Your task to perform on an android device: Search for "alienware area 51" on ebay.com, select the first entry, add it to the cart, then select checkout. Image 0: 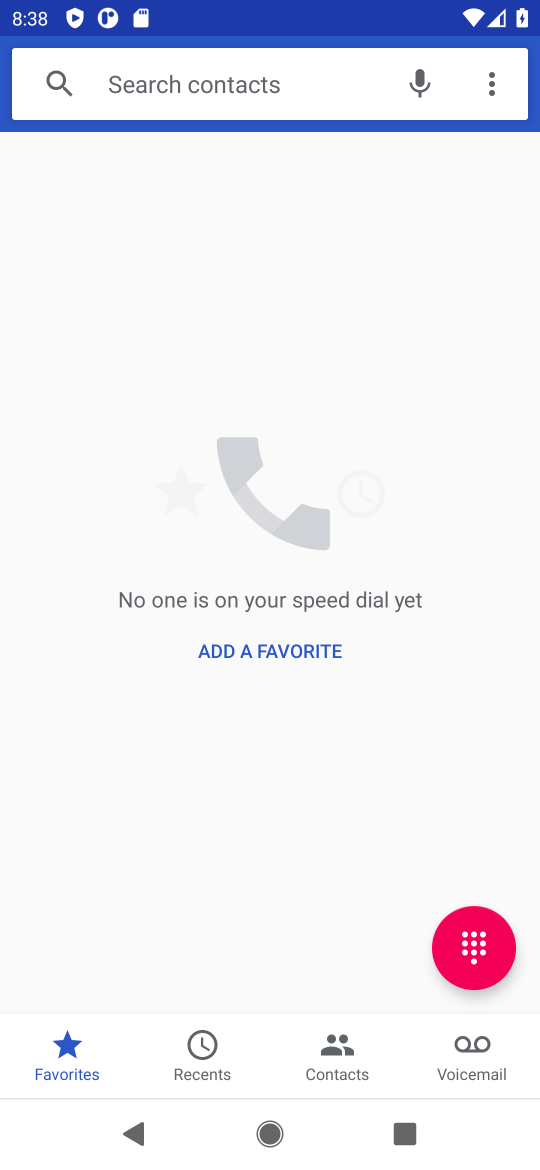
Step 0: press home button
Your task to perform on an android device: Search for "alienware area 51" on ebay.com, select the first entry, add it to the cart, then select checkout. Image 1: 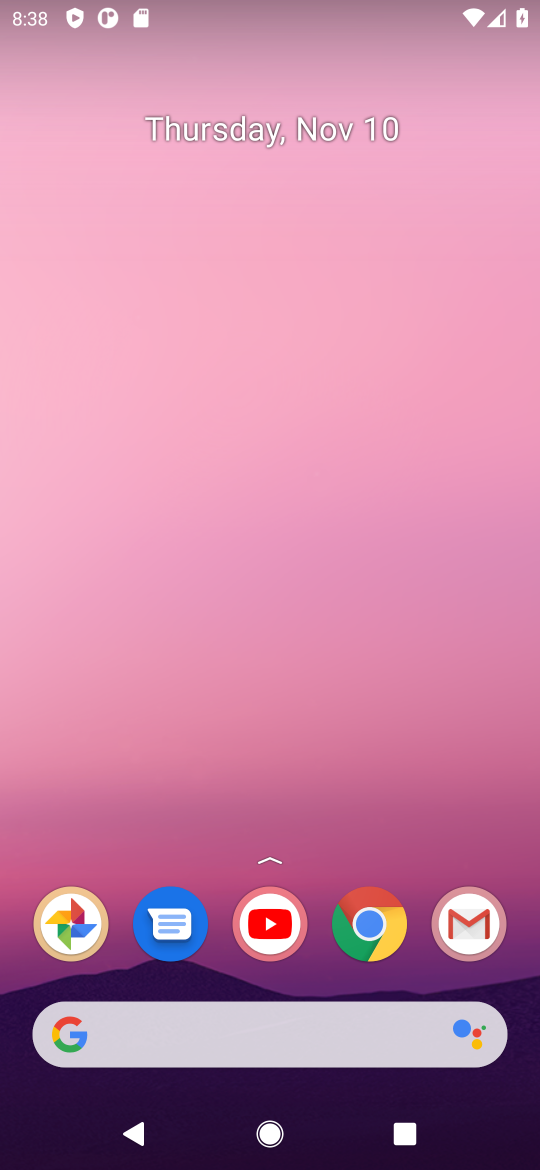
Step 1: click (446, 838)
Your task to perform on an android device: Search for "alienware area 51" on ebay.com, select the first entry, add it to the cart, then select checkout. Image 2: 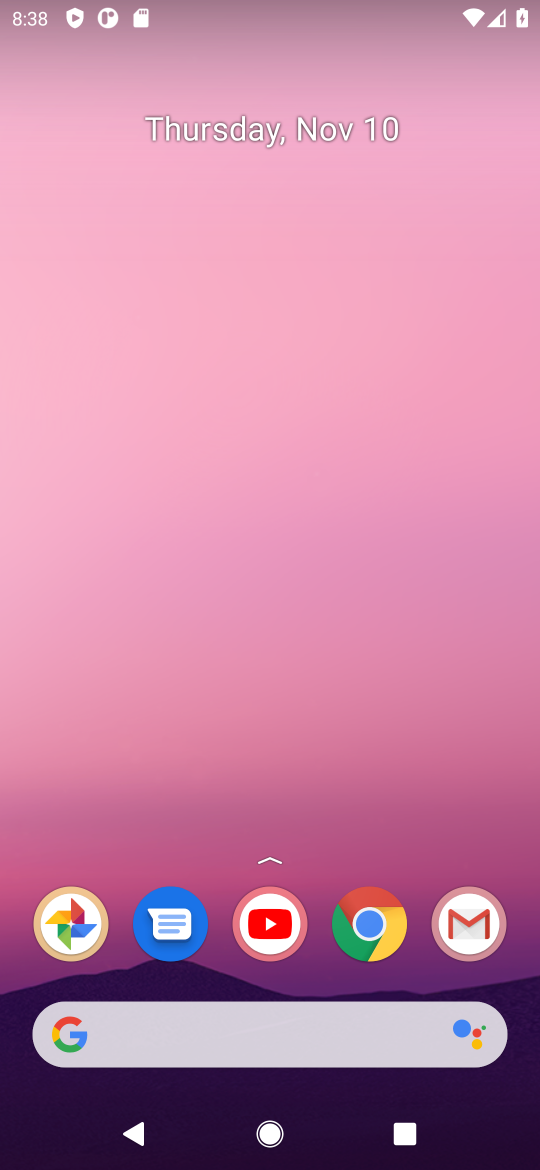
Step 2: click (374, 929)
Your task to perform on an android device: Search for "alienware area 51" on ebay.com, select the first entry, add it to the cart, then select checkout. Image 3: 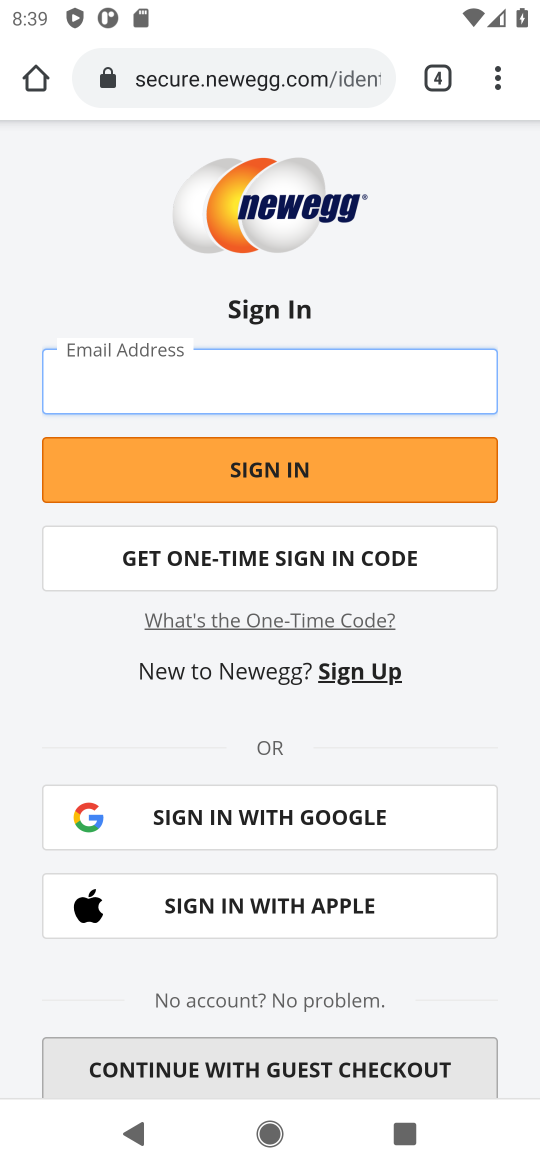
Step 3: click (191, 87)
Your task to perform on an android device: Search for "alienware area 51" on ebay.com, select the first entry, add it to the cart, then select checkout. Image 4: 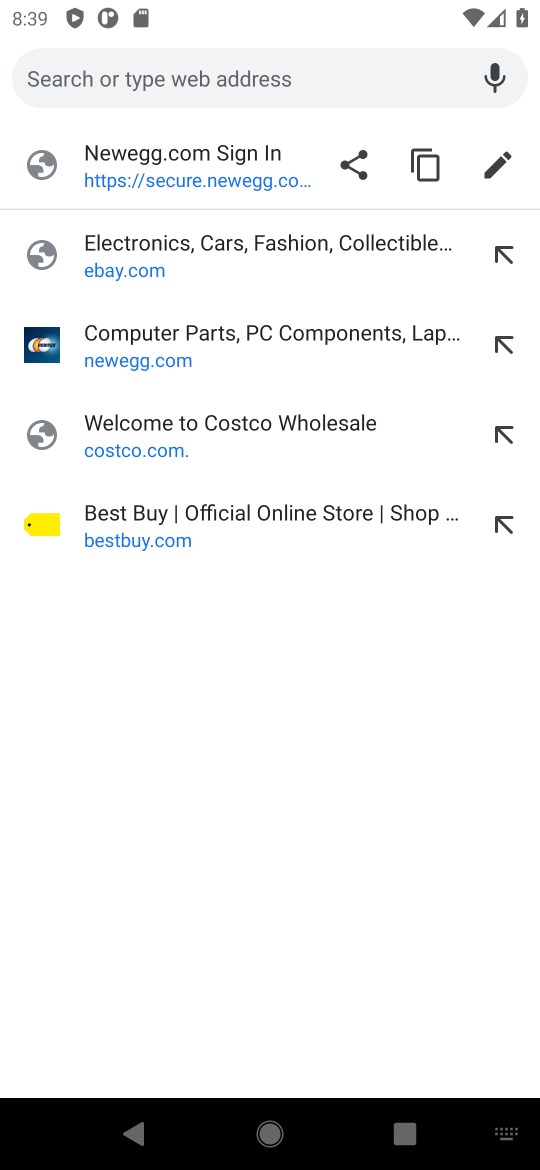
Step 4: click (120, 278)
Your task to perform on an android device: Search for "alienware area 51" on ebay.com, select the first entry, add it to the cart, then select checkout. Image 5: 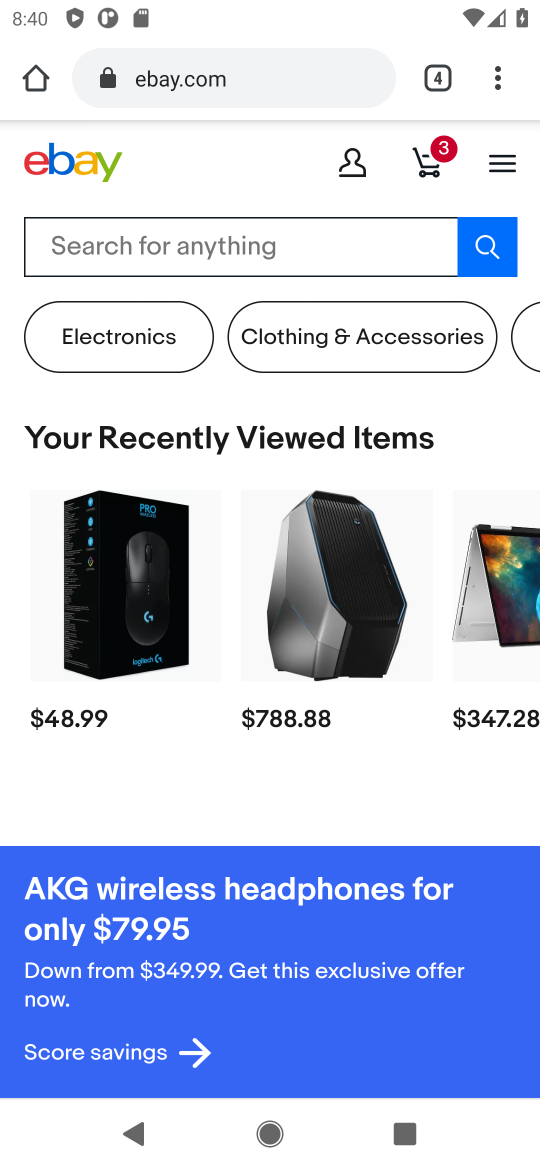
Step 5: click (135, 249)
Your task to perform on an android device: Search for "alienware area 51" on ebay.com, select the first entry, add it to the cart, then select checkout. Image 6: 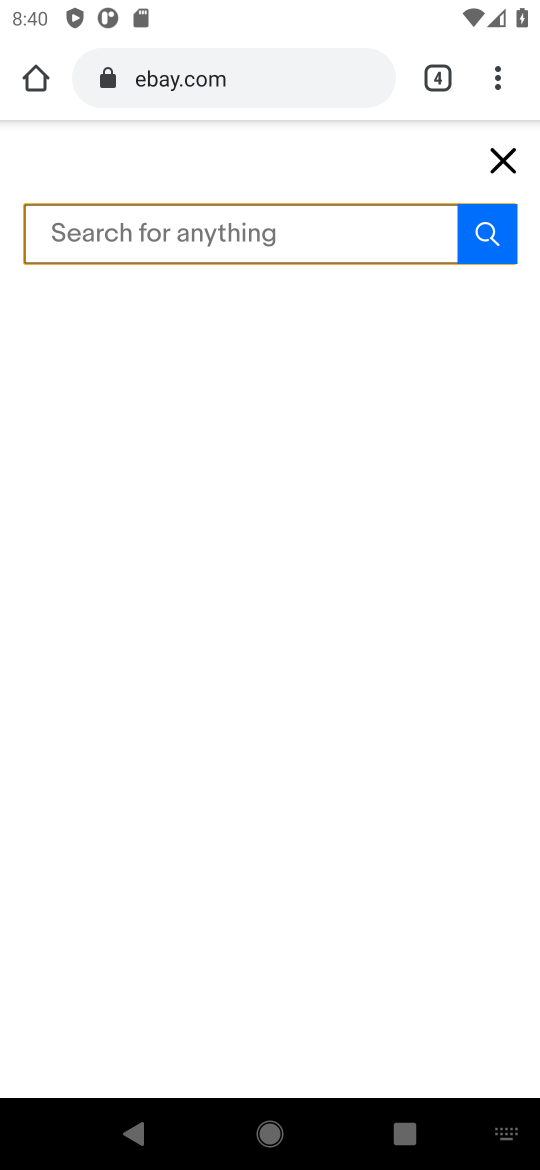
Step 6: type "alienware area 51"
Your task to perform on an android device: Search for "alienware area 51" on ebay.com, select the first entry, add it to the cart, then select checkout. Image 7: 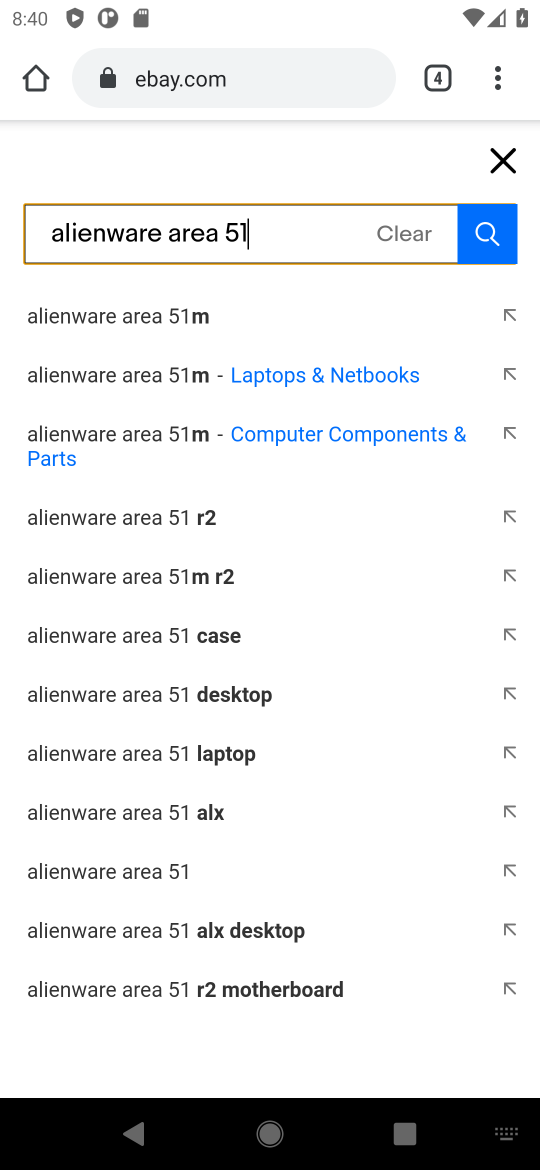
Step 7: click (130, 872)
Your task to perform on an android device: Search for "alienware area 51" on ebay.com, select the first entry, add it to the cart, then select checkout. Image 8: 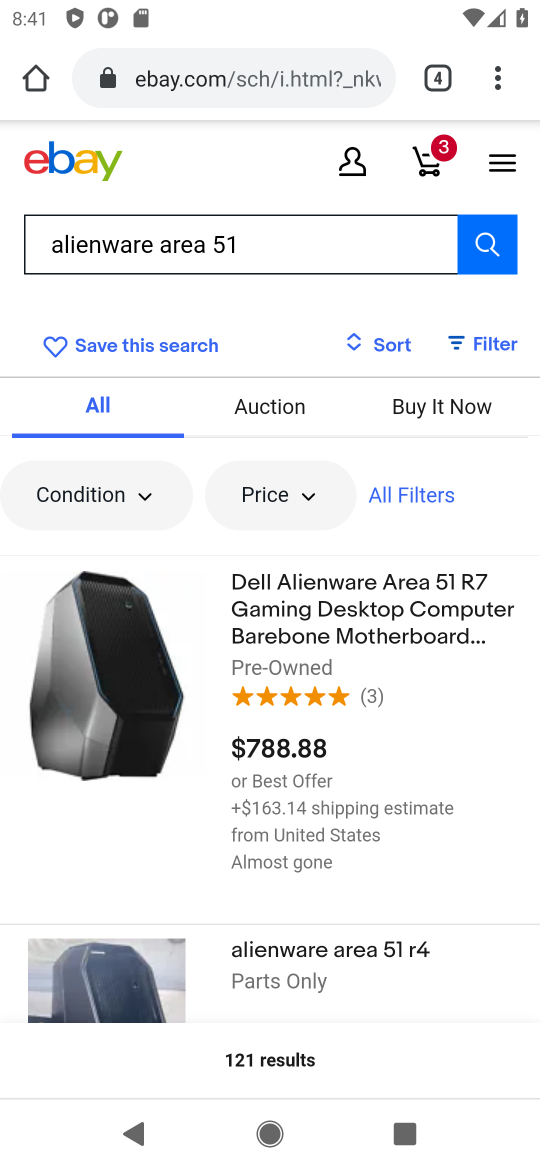
Step 8: click (105, 748)
Your task to perform on an android device: Search for "alienware area 51" on ebay.com, select the first entry, add it to the cart, then select checkout. Image 9: 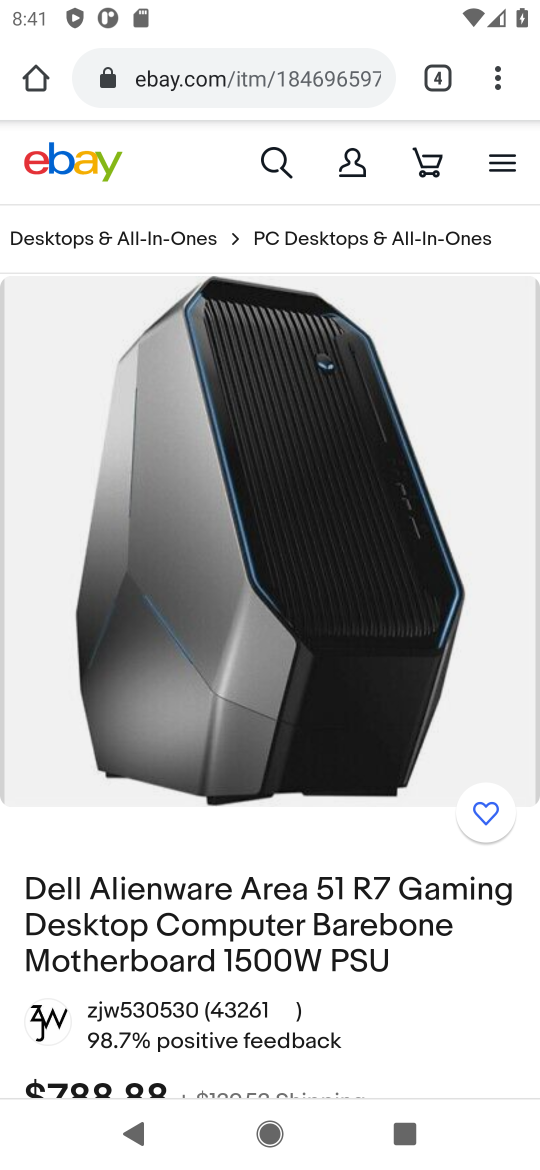
Step 9: drag from (199, 887) to (202, 330)
Your task to perform on an android device: Search for "alienware area 51" on ebay.com, select the first entry, add it to the cart, then select checkout. Image 10: 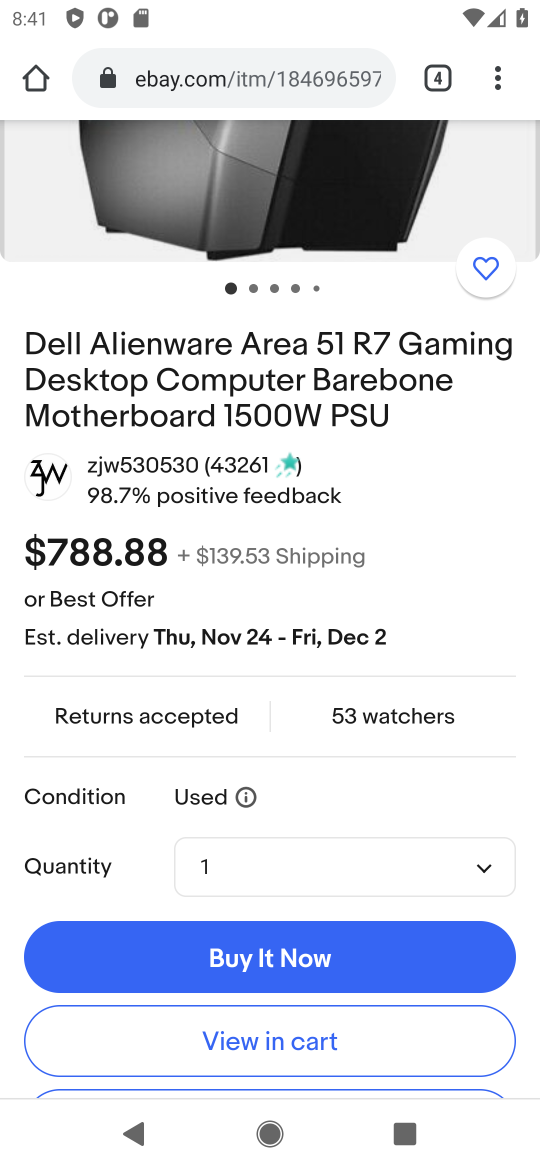
Step 10: click (257, 1051)
Your task to perform on an android device: Search for "alienware area 51" on ebay.com, select the first entry, add it to the cart, then select checkout. Image 11: 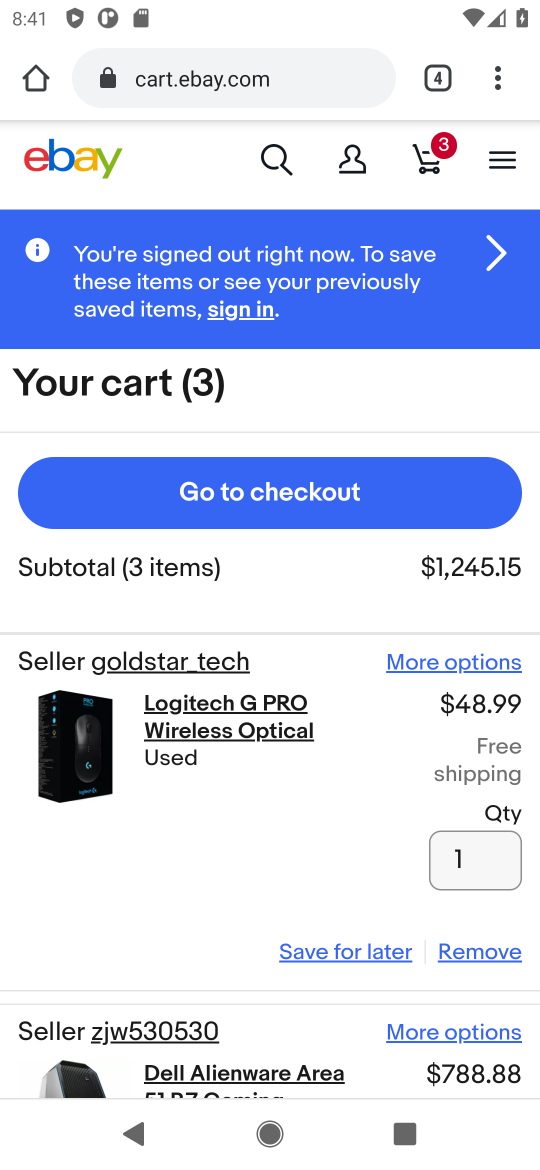
Step 11: drag from (256, 879) to (258, 716)
Your task to perform on an android device: Search for "alienware area 51" on ebay.com, select the first entry, add it to the cart, then select checkout. Image 12: 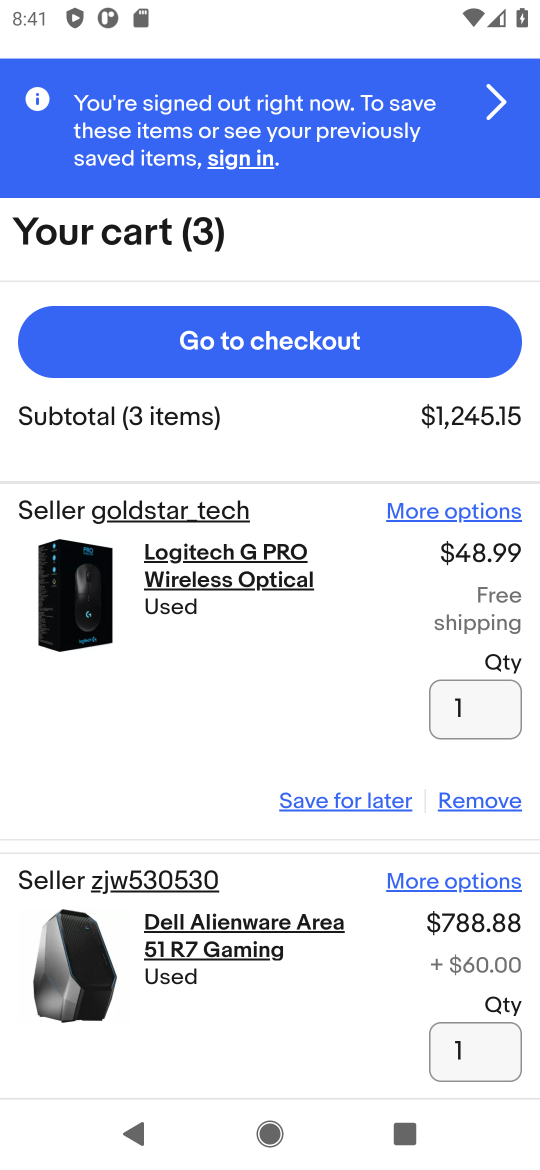
Step 12: click (240, 352)
Your task to perform on an android device: Search for "alienware area 51" on ebay.com, select the first entry, add it to the cart, then select checkout. Image 13: 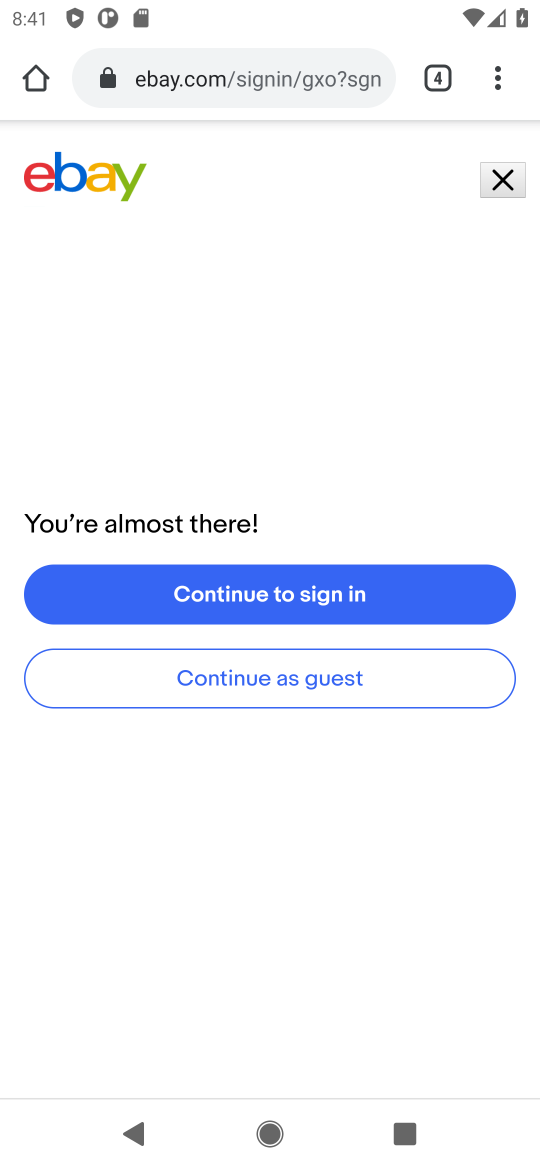
Step 13: task complete